Your task to perform on an android device: Do I have any events tomorrow? Image 0: 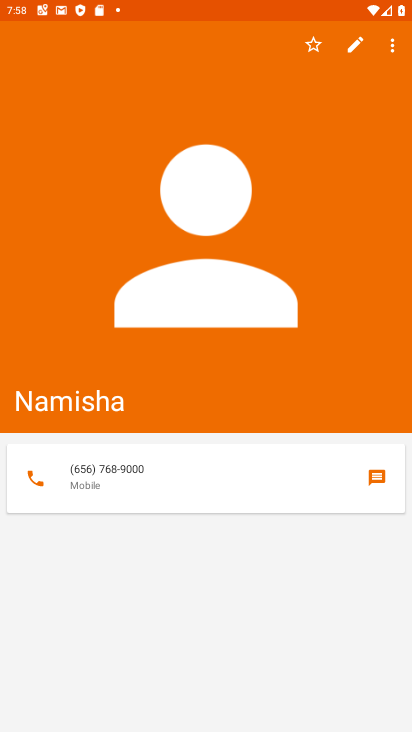
Step 0: press home button
Your task to perform on an android device: Do I have any events tomorrow? Image 1: 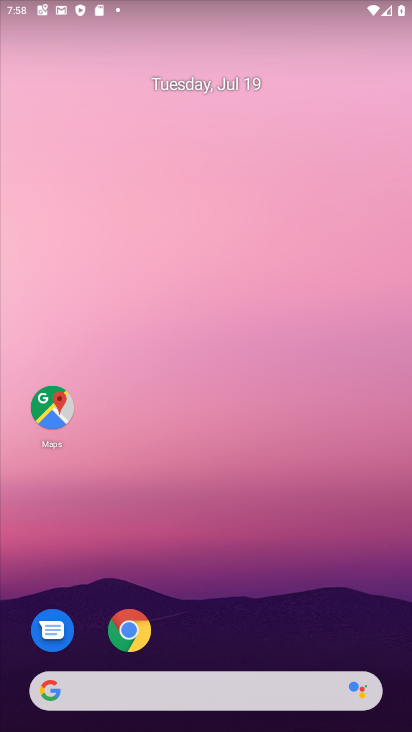
Step 1: drag from (168, 561) to (154, 204)
Your task to perform on an android device: Do I have any events tomorrow? Image 2: 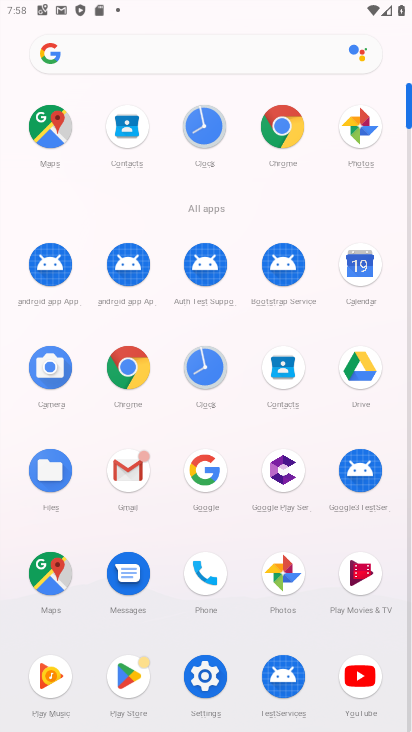
Step 2: click (361, 262)
Your task to perform on an android device: Do I have any events tomorrow? Image 3: 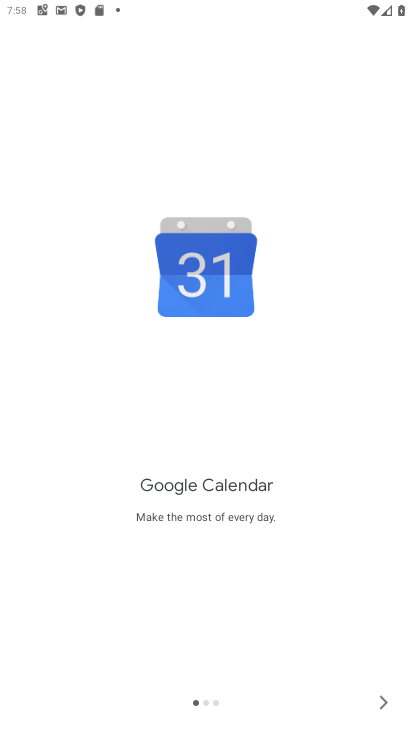
Step 3: click (379, 702)
Your task to perform on an android device: Do I have any events tomorrow? Image 4: 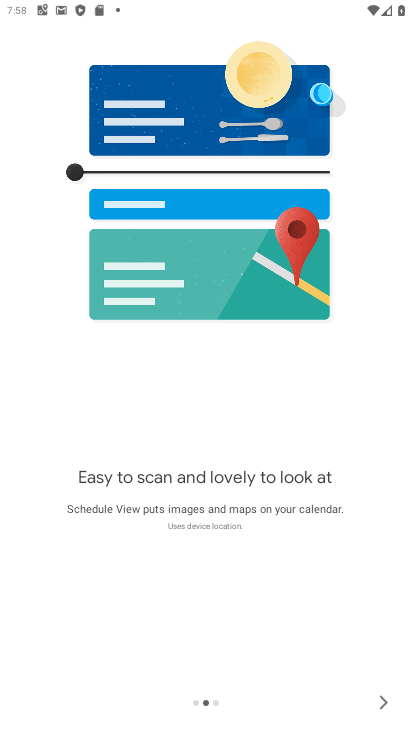
Step 4: click (379, 702)
Your task to perform on an android device: Do I have any events tomorrow? Image 5: 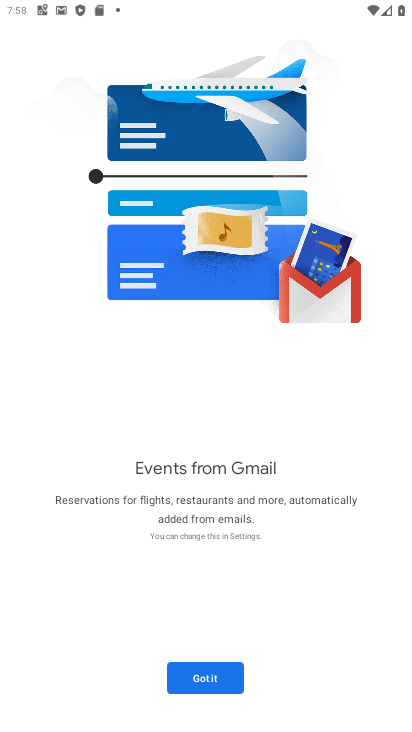
Step 5: click (211, 670)
Your task to perform on an android device: Do I have any events tomorrow? Image 6: 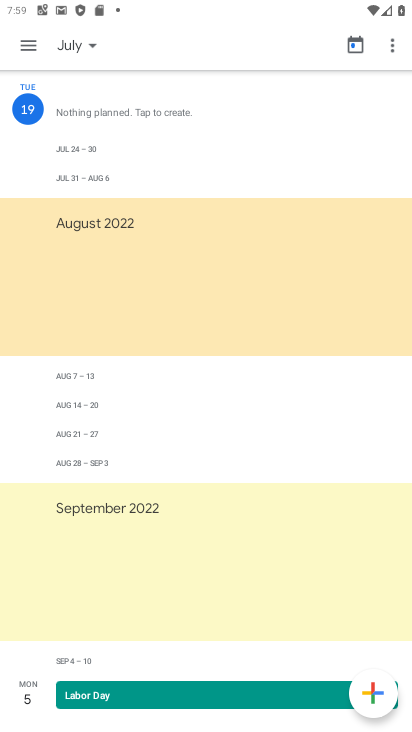
Step 6: click (91, 56)
Your task to perform on an android device: Do I have any events tomorrow? Image 7: 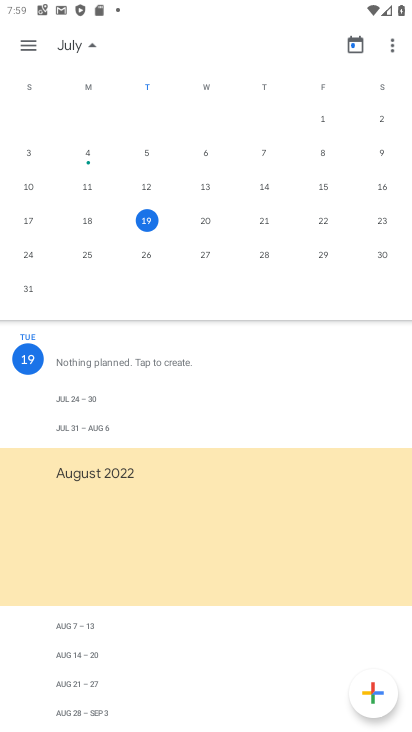
Step 7: click (205, 223)
Your task to perform on an android device: Do I have any events tomorrow? Image 8: 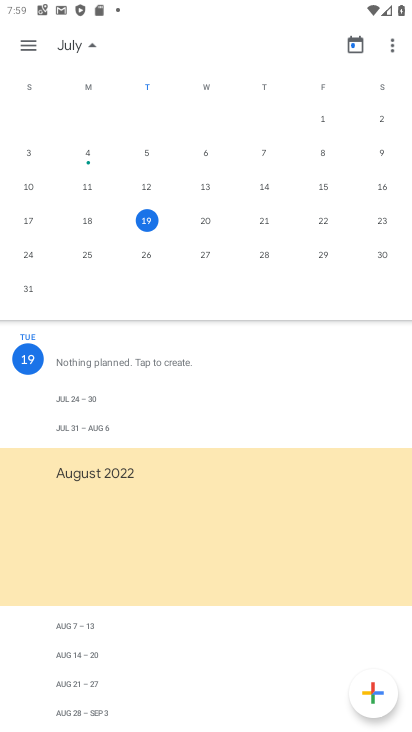
Step 8: click (205, 223)
Your task to perform on an android device: Do I have any events tomorrow? Image 9: 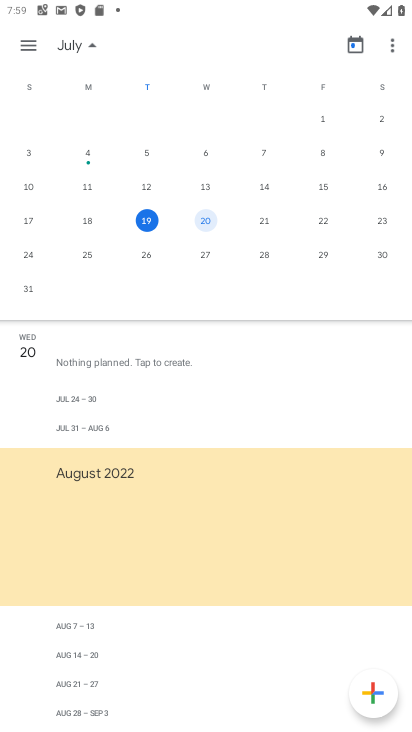
Step 9: task complete